Your task to perform on an android device: allow cookies in the chrome app Image 0: 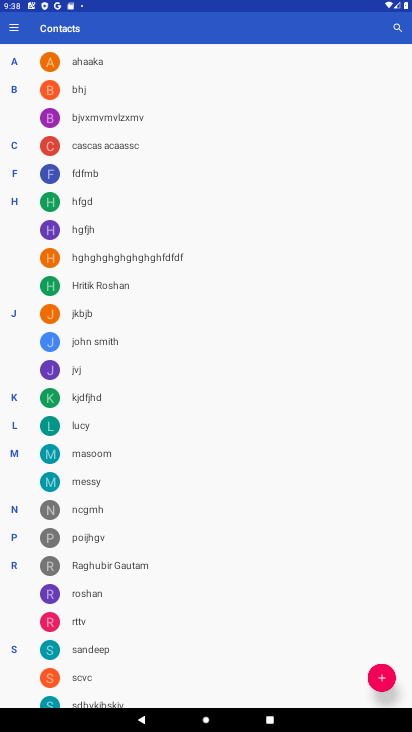
Step 0: press home button
Your task to perform on an android device: allow cookies in the chrome app Image 1: 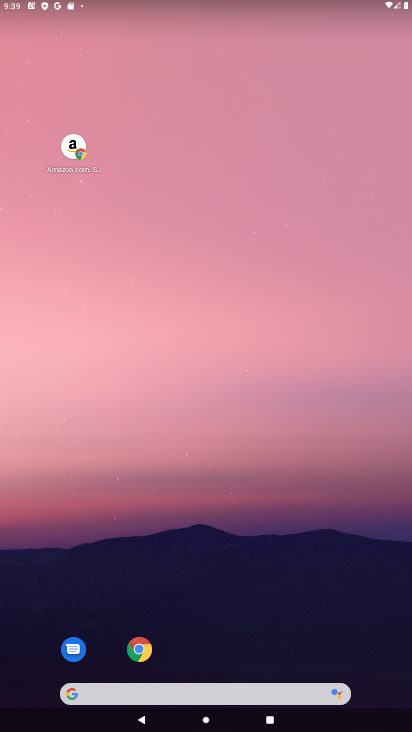
Step 1: click (138, 648)
Your task to perform on an android device: allow cookies in the chrome app Image 2: 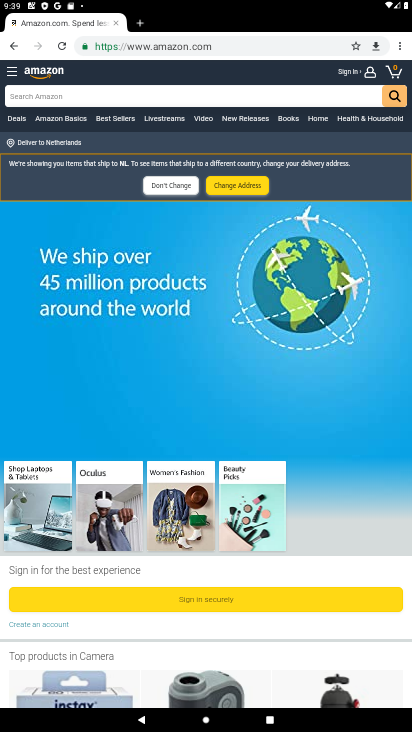
Step 2: click (401, 45)
Your task to perform on an android device: allow cookies in the chrome app Image 3: 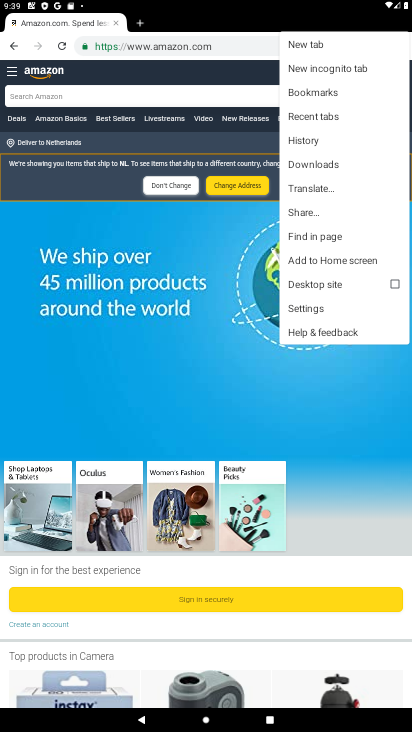
Step 3: click (312, 309)
Your task to perform on an android device: allow cookies in the chrome app Image 4: 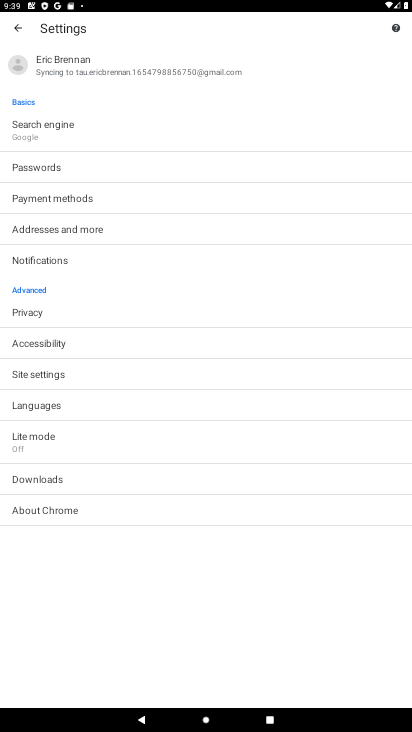
Step 4: click (32, 372)
Your task to perform on an android device: allow cookies in the chrome app Image 5: 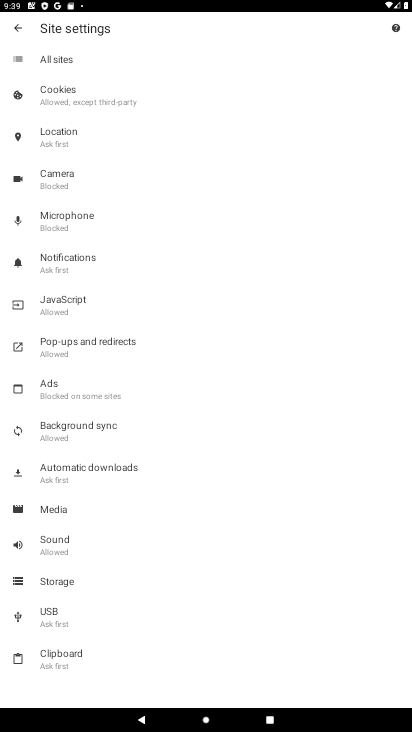
Step 5: click (99, 101)
Your task to perform on an android device: allow cookies in the chrome app Image 6: 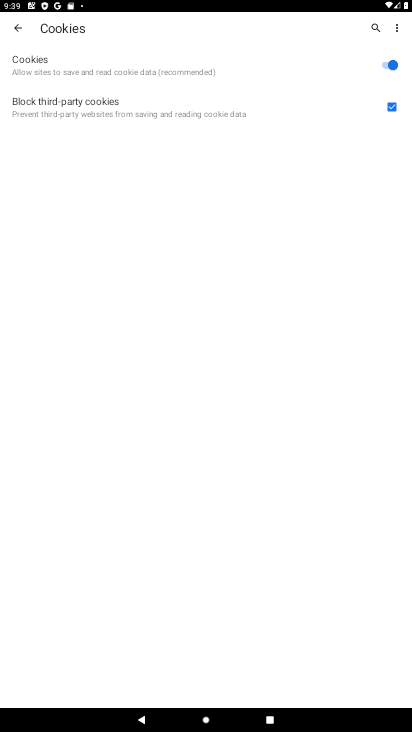
Step 6: task complete